Your task to perform on an android device: Open the map Image 0: 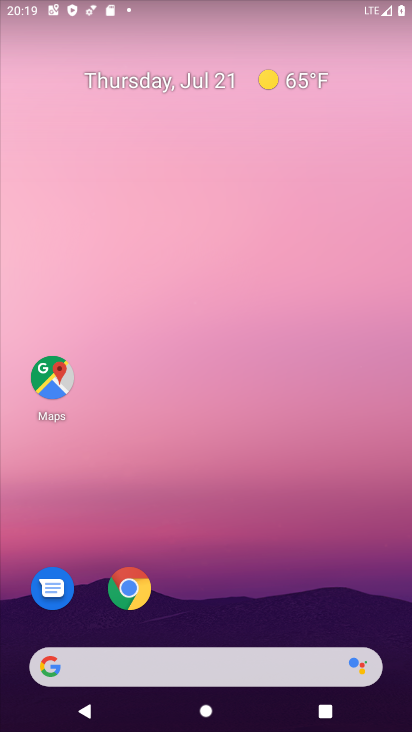
Step 0: click (48, 393)
Your task to perform on an android device: Open the map Image 1: 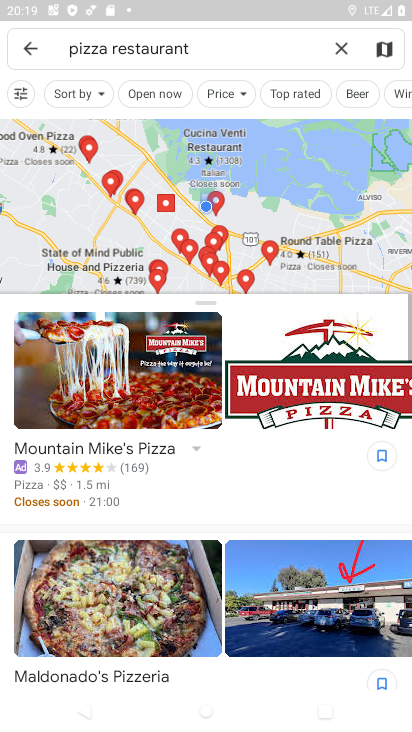
Step 1: click (36, 45)
Your task to perform on an android device: Open the map Image 2: 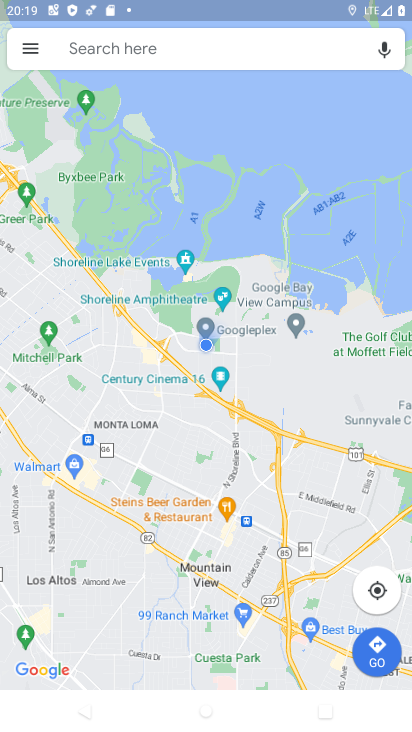
Step 2: task complete